Your task to perform on an android device: turn off wifi Image 0: 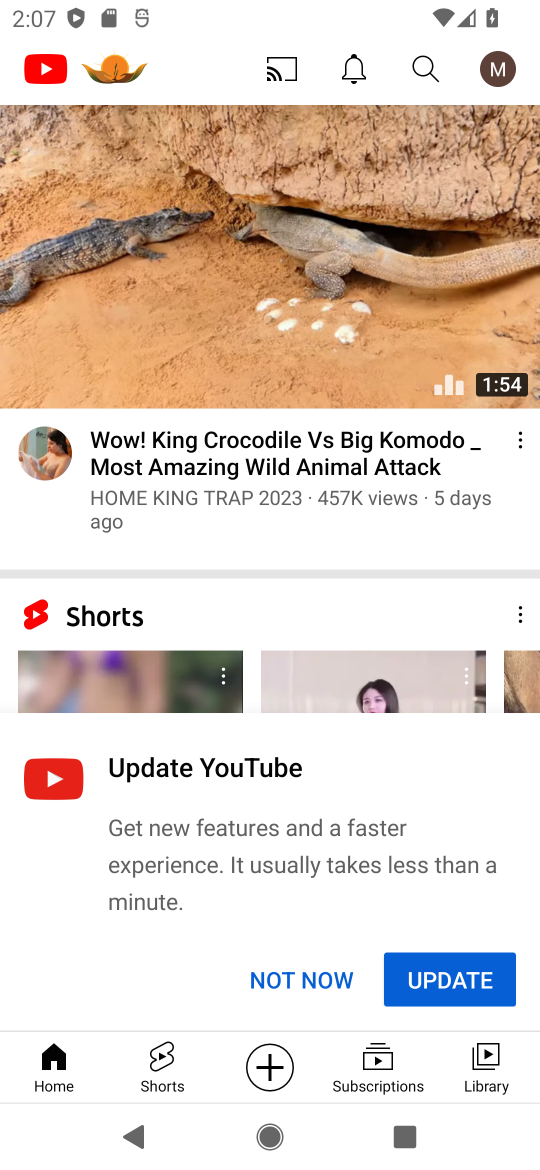
Step 0: press home button
Your task to perform on an android device: turn off wifi Image 1: 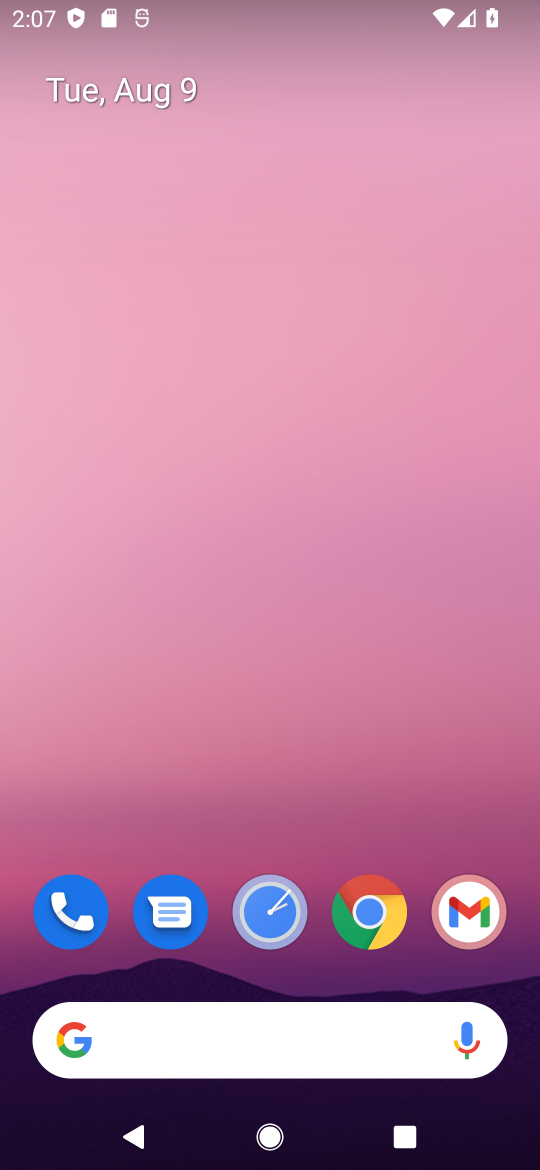
Step 1: drag from (276, 814) to (202, 41)
Your task to perform on an android device: turn off wifi Image 2: 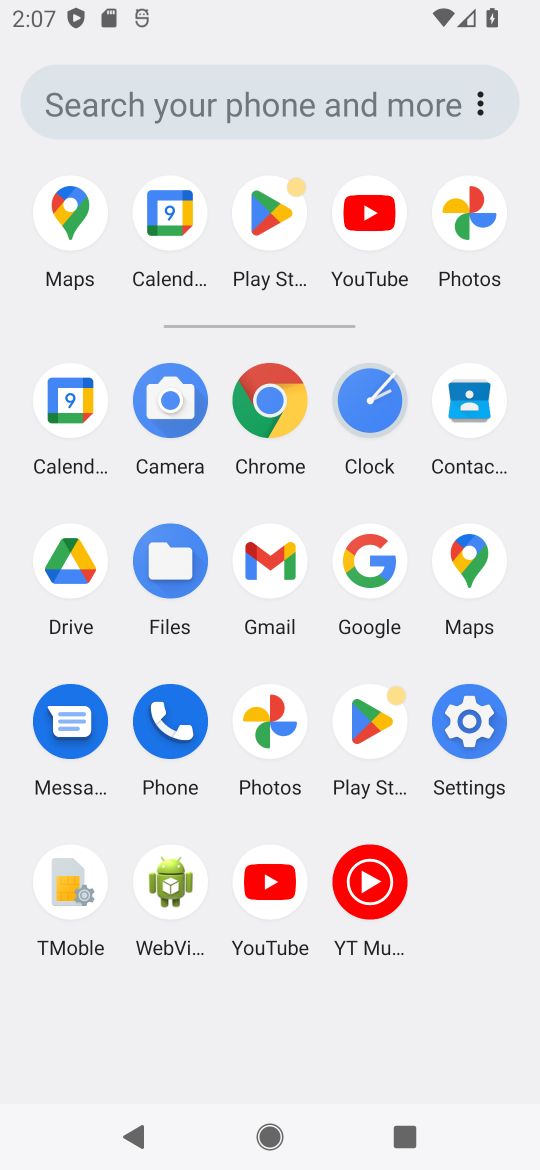
Step 2: click (473, 723)
Your task to perform on an android device: turn off wifi Image 3: 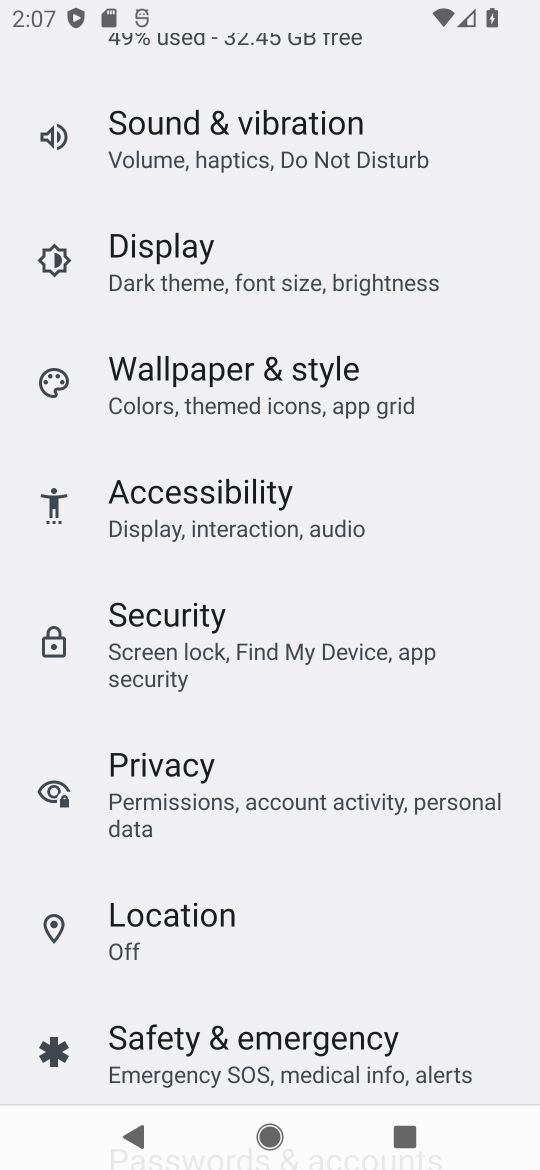
Step 3: drag from (283, 311) to (264, 834)
Your task to perform on an android device: turn off wifi Image 4: 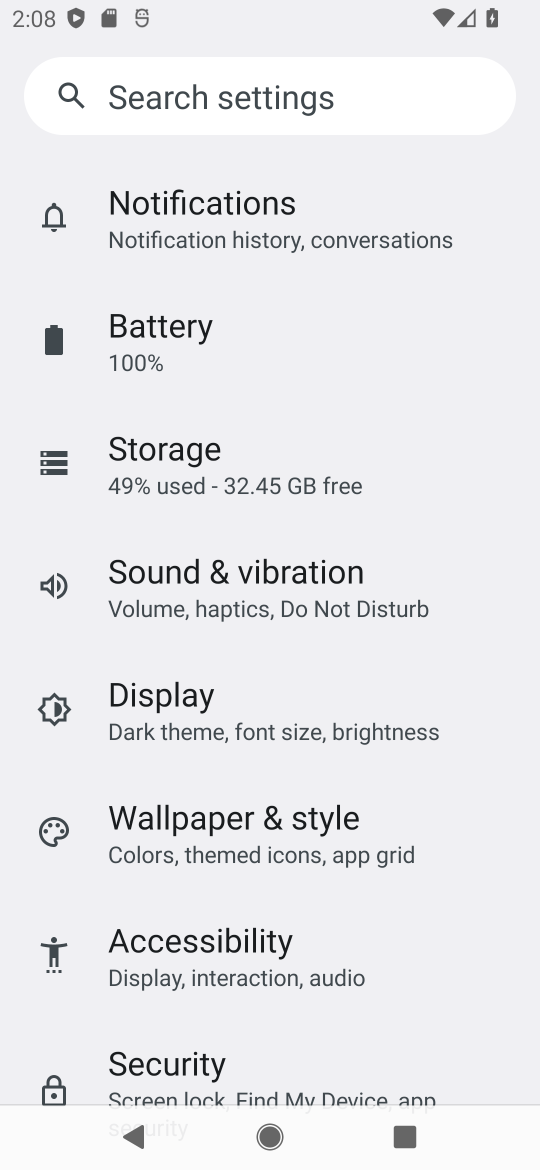
Step 4: drag from (264, 321) to (358, 941)
Your task to perform on an android device: turn off wifi Image 5: 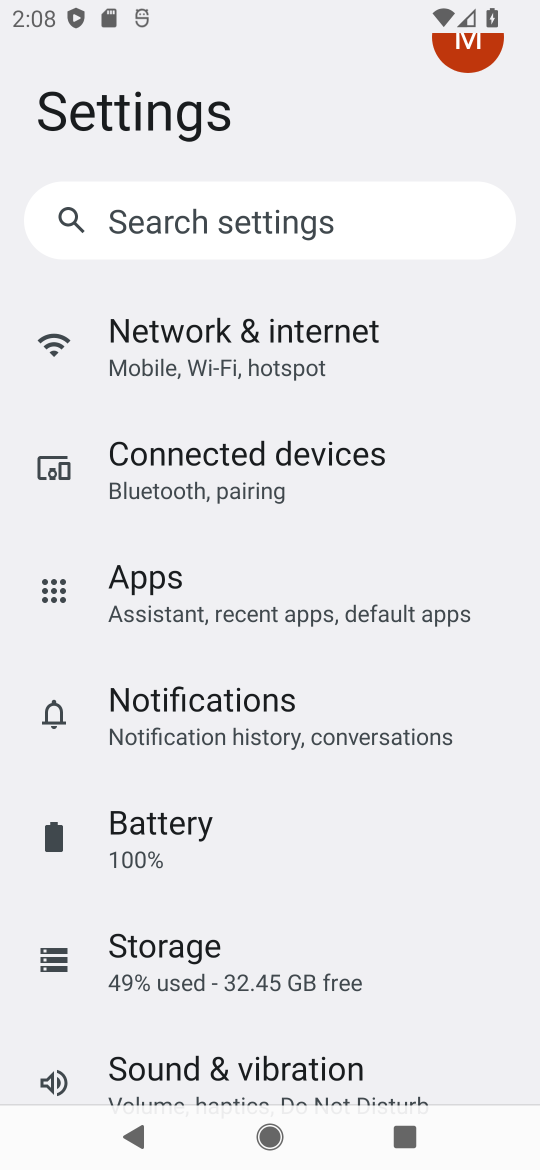
Step 5: click (233, 328)
Your task to perform on an android device: turn off wifi Image 6: 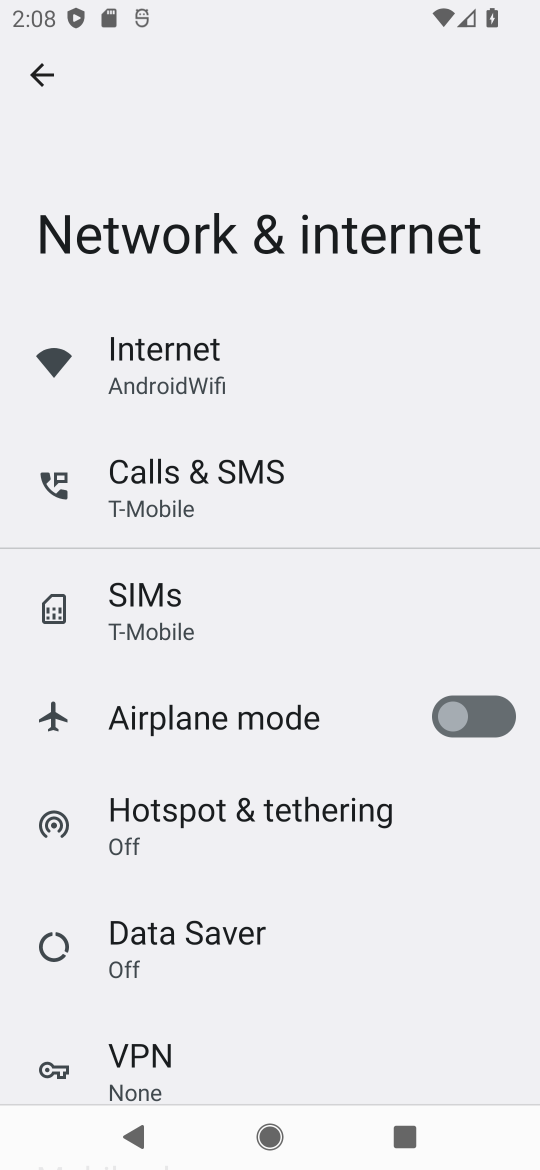
Step 6: click (179, 349)
Your task to perform on an android device: turn off wifi Image 7: 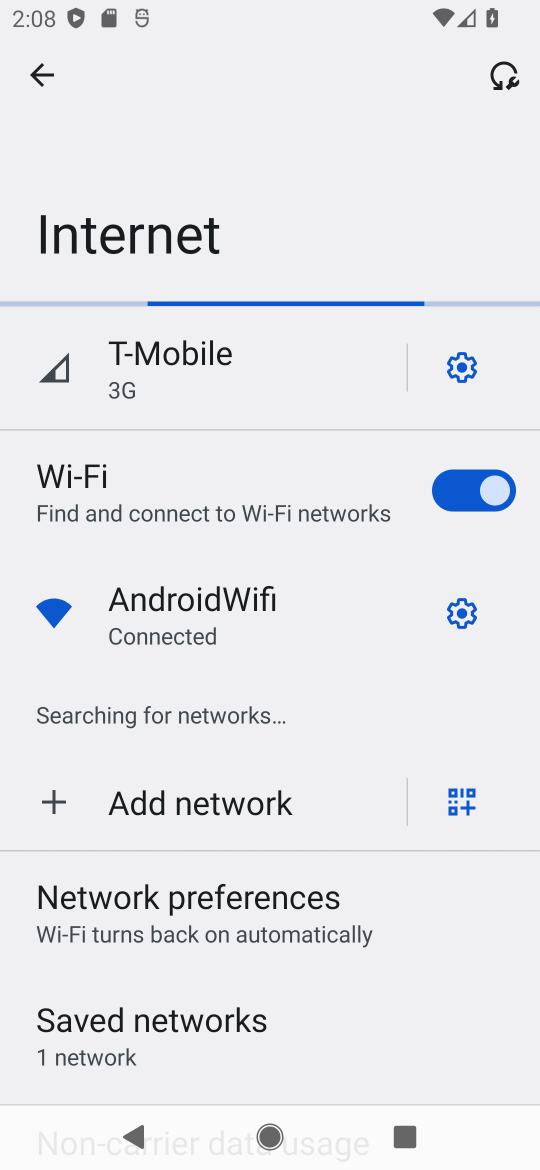
Step 7: click (454, 494)
Your task to perform on an android device: turn off wifi Image 8: 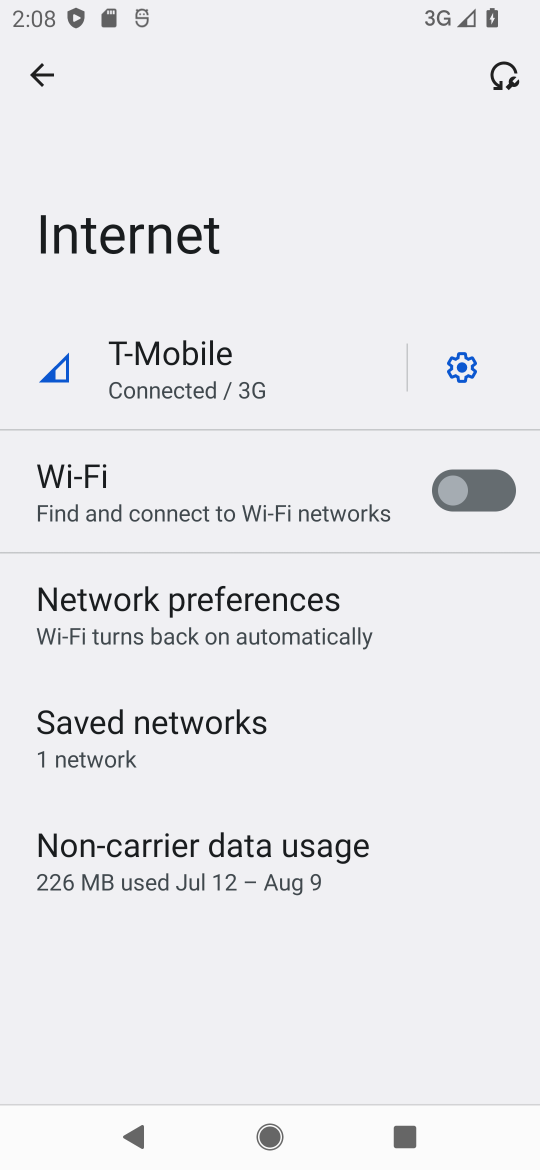
Step 8: task complete